Your task to perform on an android device: Go to Maps Image 0: 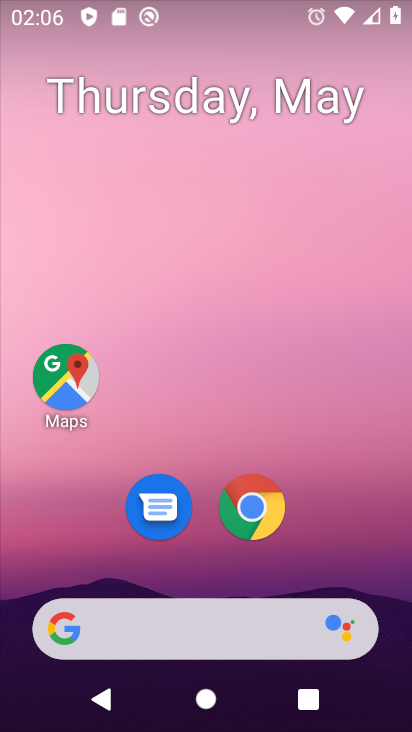
Step 0: click (72, 396)
Your task to perform on an android device: Go to Maps Image 1: 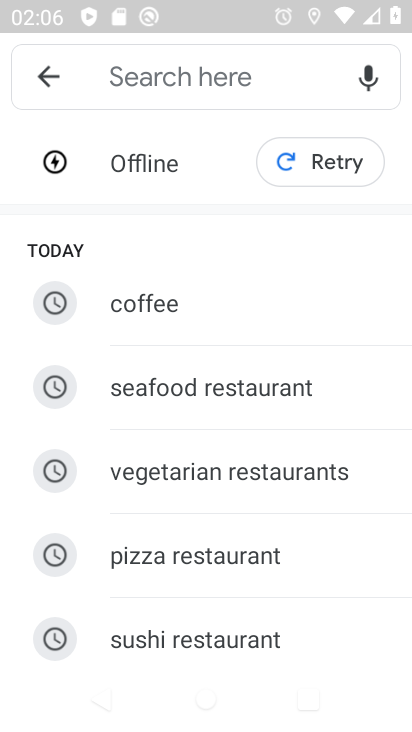
Step 1: task complete